Your task to perform on an android device: Go to Wikipedia Image 0: 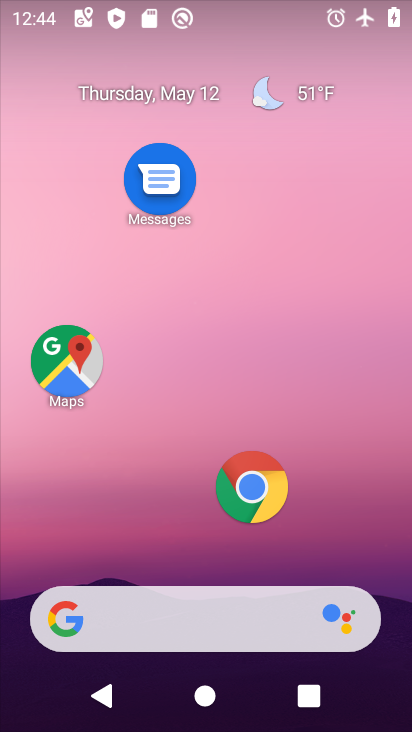
Step 0: click (247, 507)
Your task to perform on an android device: Go to Wikipedia Image 1: 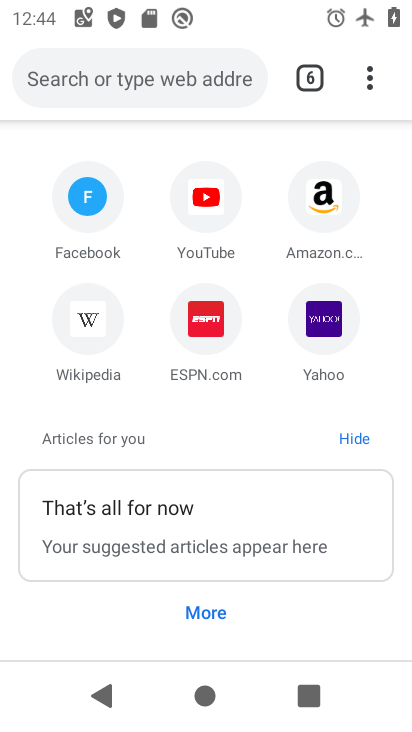
Step 1: click (57, 83)
Your task to perform on an android device: Go to Wikipedia Image 2: 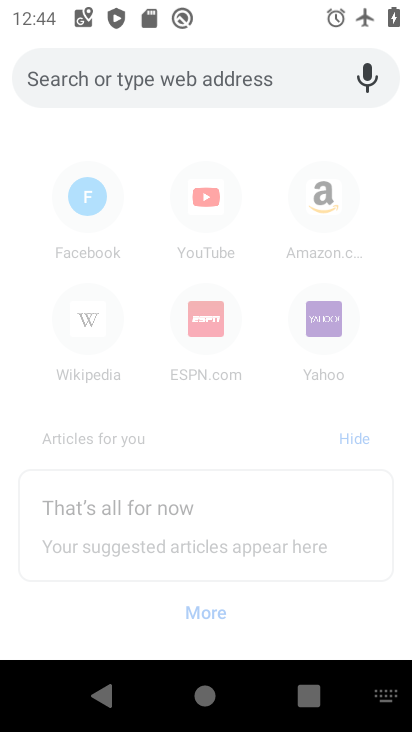
Step 2: type "Wikipedia"
Your task to perform on an android device: Go to Wikipedia Image 3: 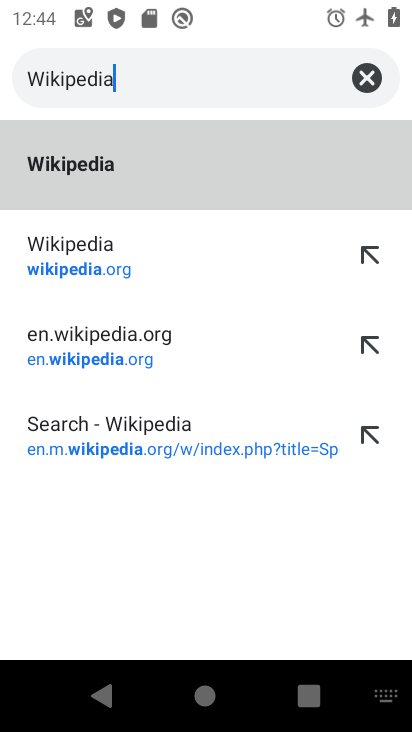
Step 3: click (121, 177)
Your task to perform on an android device: Go to Wikipedia Image 4: 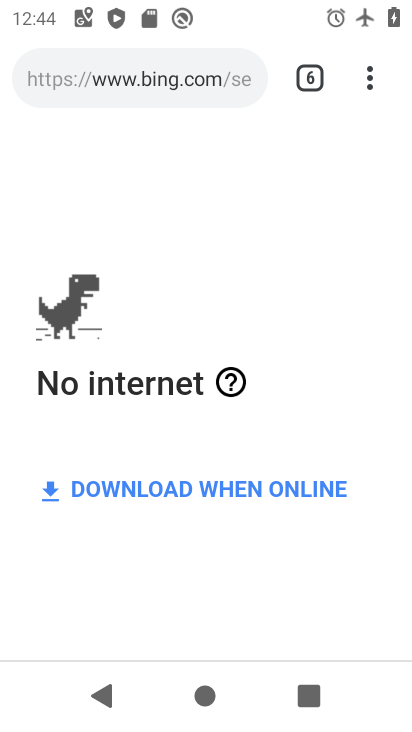
Step 4: task complete